Your task to perform on an android device: What's the weather? Image 0: 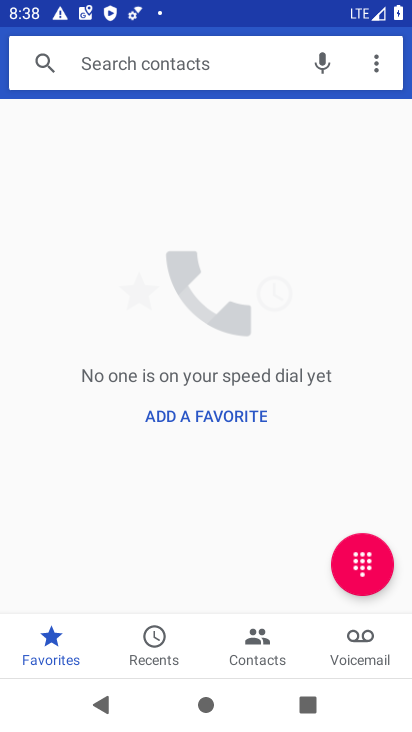
Step 0: press home button
Your task to perform on an android device: What's the weather? Image 1: 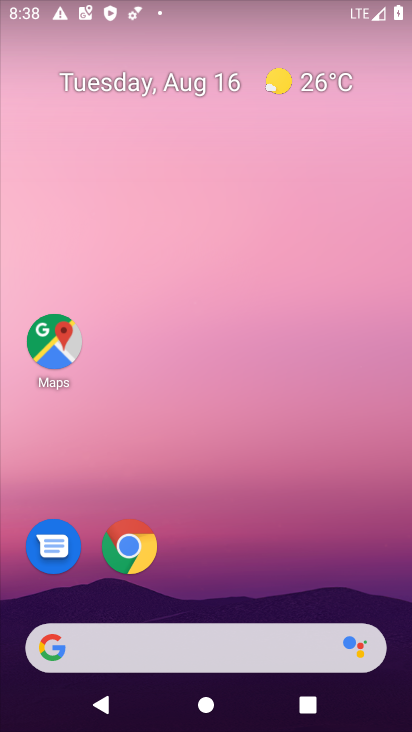
Step 1: click (330, 90)
Your task to perform on an android device: What's the weather? Image 2: 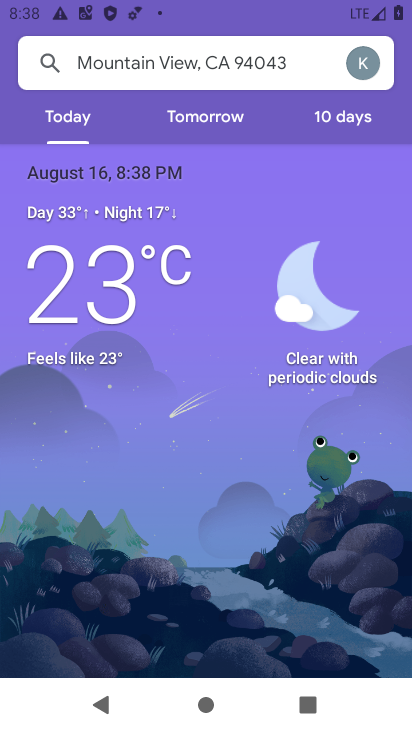
Step 2: task complete